Your task to perform on an android device: Open sound settings Image 0: 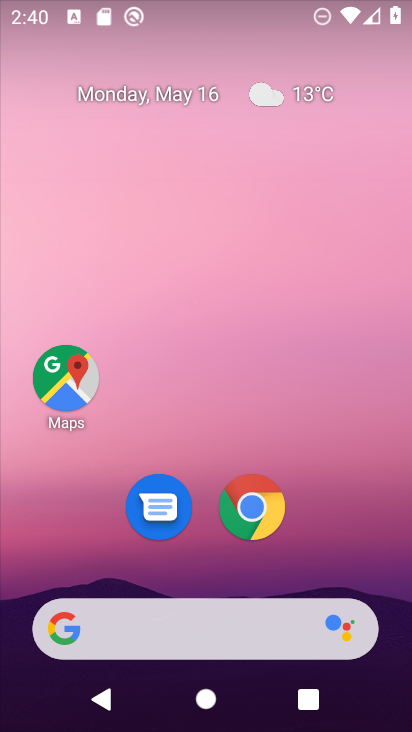
Step 0: drag from (195, 563) to (248, 156)
Your task to perform on an android device: Open sound settings Image 1: 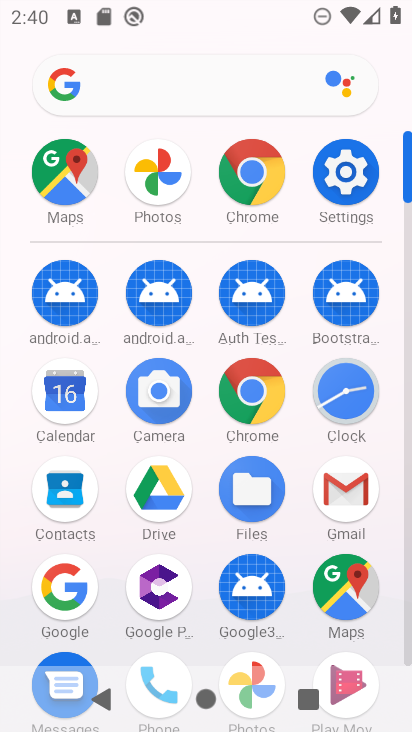
Step 1: click (360, 196)
Your task to perform on an android device: Open sound settings Image 2: 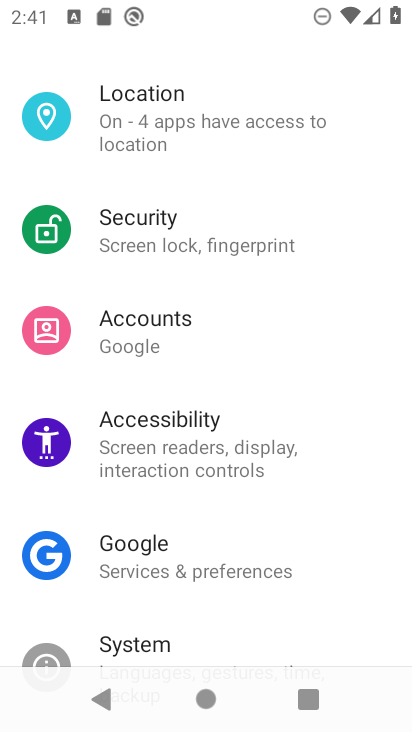
Step 2: drag from (182, 367) to (128, 558)
Your task to perform on an android device: Open sound settings Image 3: 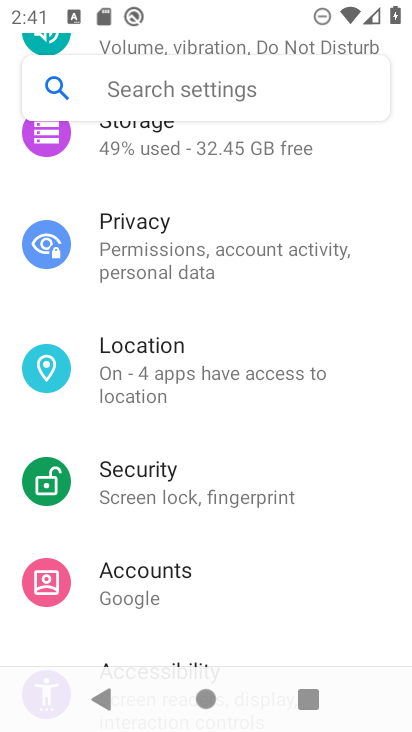
Step 3: drag from (156, 236) to (134, 574)
Your task to perform on an android device: Open sound settings Image 4: 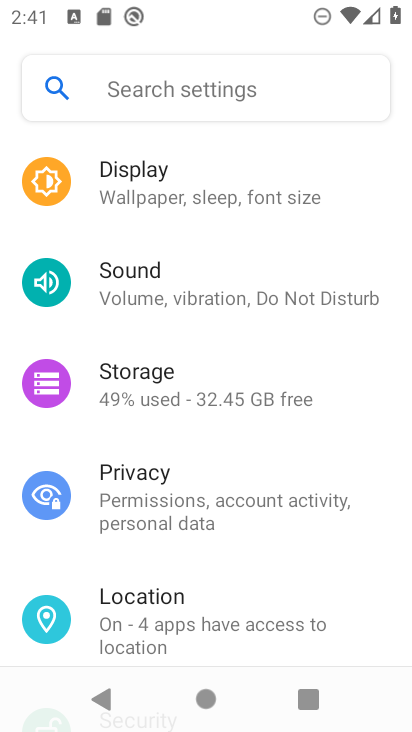
Step 4: click (153, 308)
Your task to perform on an android device: Open sound settings Image 5: 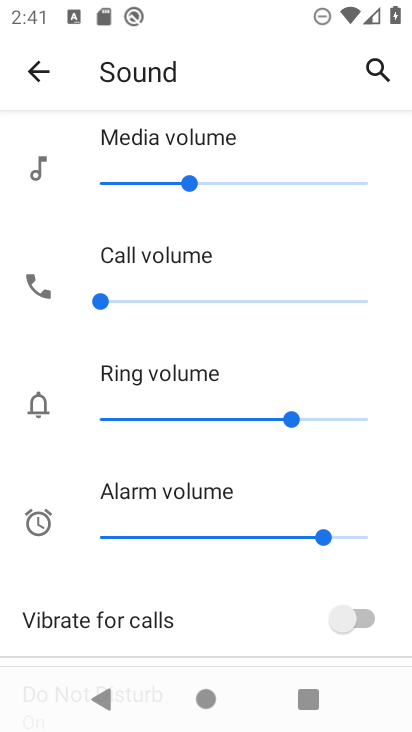
Step 5: task complete